Your task to perform on an android device: turn on data saver in the chrome app Image 0: 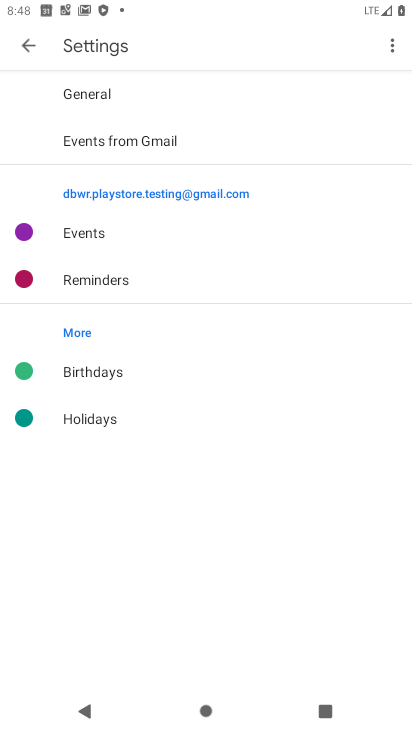
Step 0: press home button
Your task to perform on an android device: turn on data saver in the chrome app Image 1: 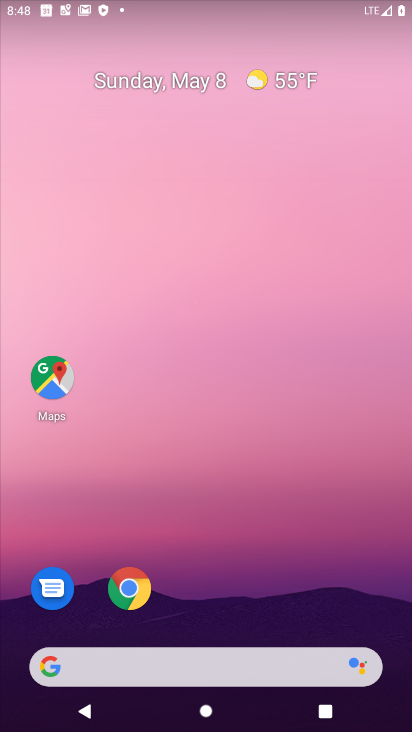
Step 1: drag from (321, 609) to (217, 27)
Your task to perform on an android device: turn on data saver in the chrome app Image 2: 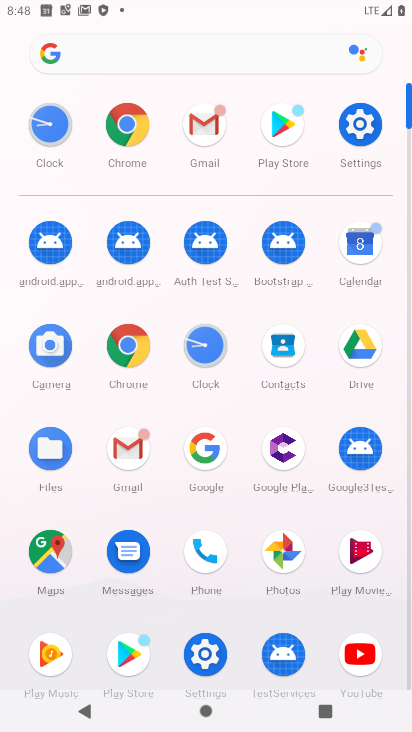
Step 2: click (123, 347)
Your task to perform on an android device: turn on data saver in the chrome app Image 3: 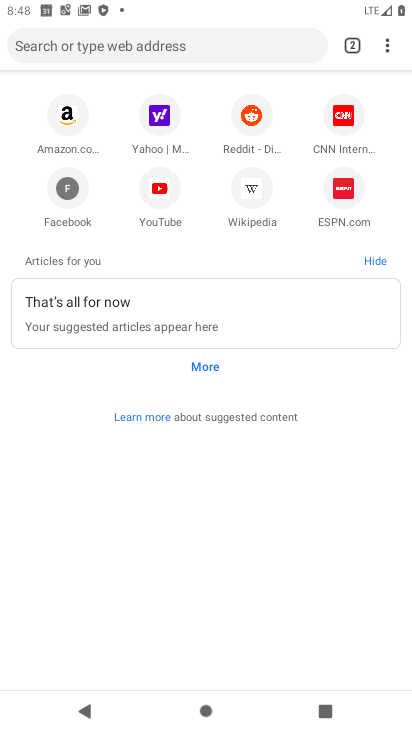
Step 3: click (390, 41)
Your task to perform on an android device: turn on data saver in the chrome app Image 4: 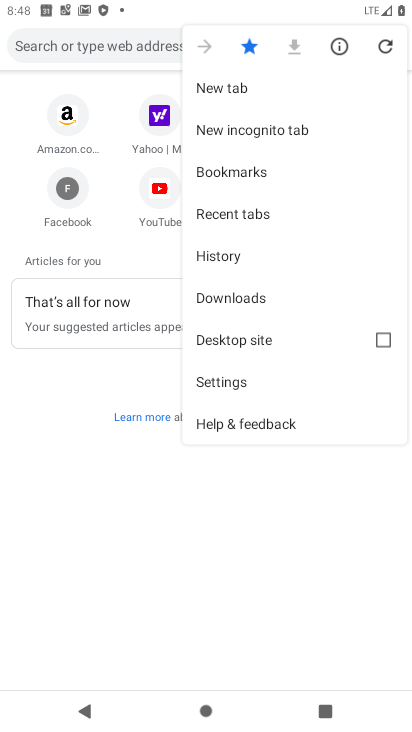
Step 4: click (221, 377)
Your task to perform on an android device: turn on data saver in the chrome app Image 5: 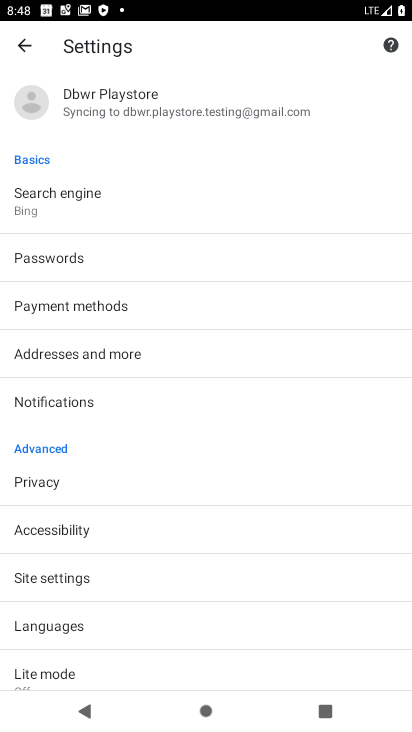
Step 5: click (94, 670)
Your task to perform on an android device: turn on data saver in the chrome app Image 6: 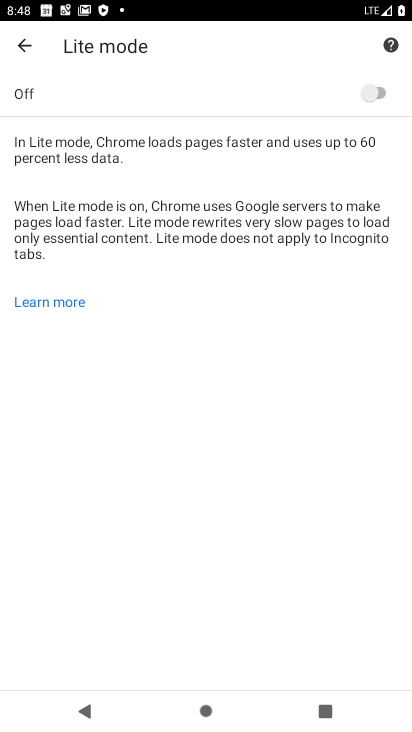
Step 6: click (327, 98)
Your task to perform on an android device: turn on data saver in the chrome app Image 7: 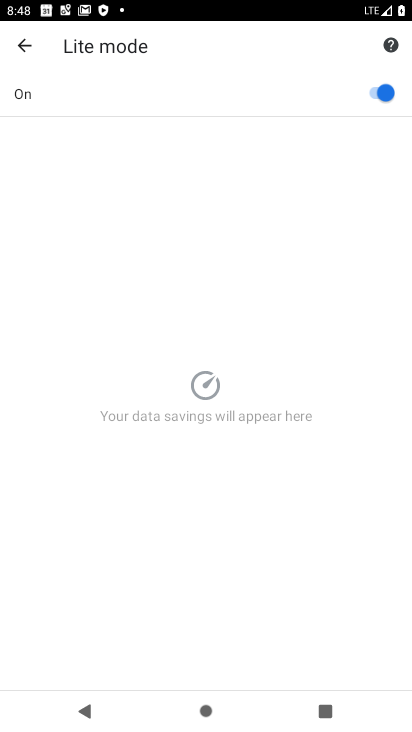
Step 7: task complete